Your task to perform on an android device: turn vacation reply on in the gmail app Image 0: 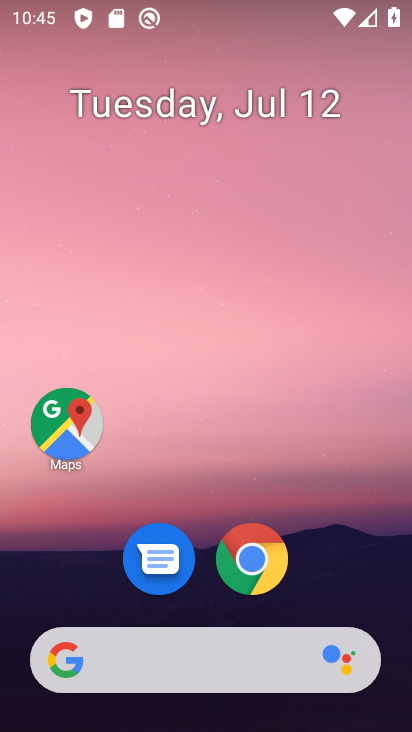
Step 0: drag from (227, 710) to (219, 261)
Your task to perform on an android device: turn vacation reply on in the gmail app Image 1: 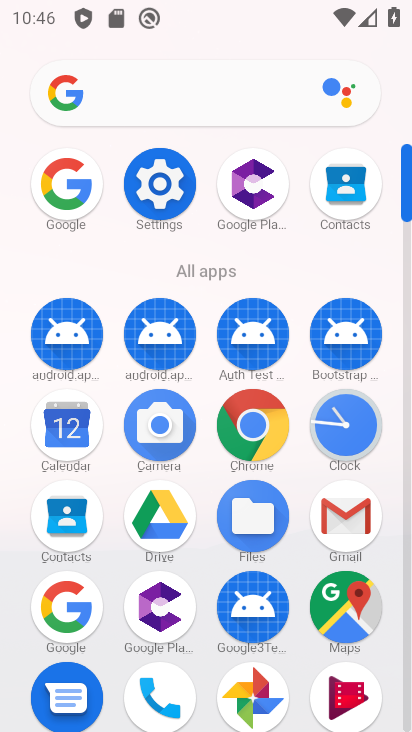
Step 1: click (344, 526)
Your task to perform on an android device: turn vacation reply on in the gmail app Image 2: 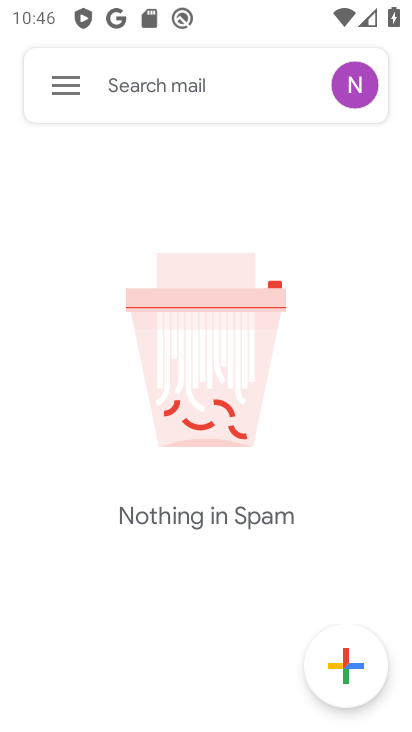
Step 2: click (68, 95)
Your task to perform on an android device: turn vacation reply on in the gmail app Image 3: 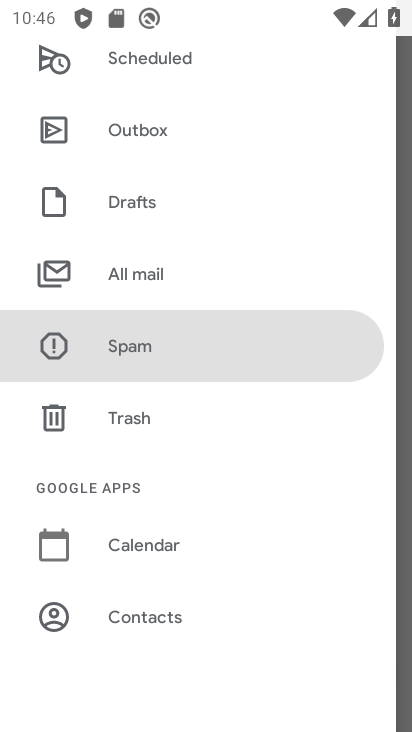
Step 3: drag from (124, 603) to (131, 131)
Your task to perform on an android device: turn vacation reply on in the gmail app Image 4: 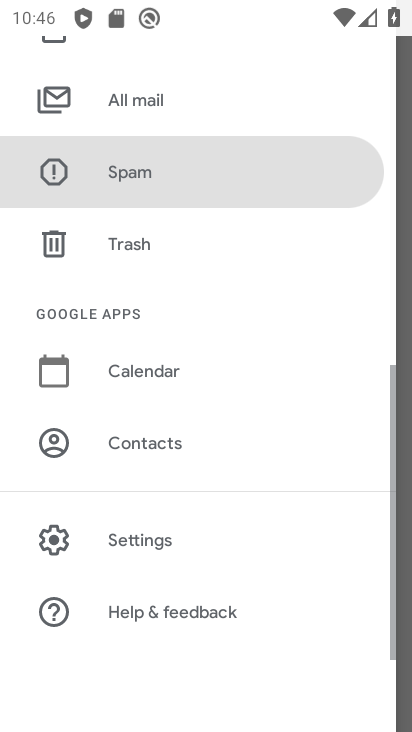
Step 4: drag from (146, 587) to (153, 358)
Your task to perform on an android device: turn vacation reply on in the gmail app Image 5: 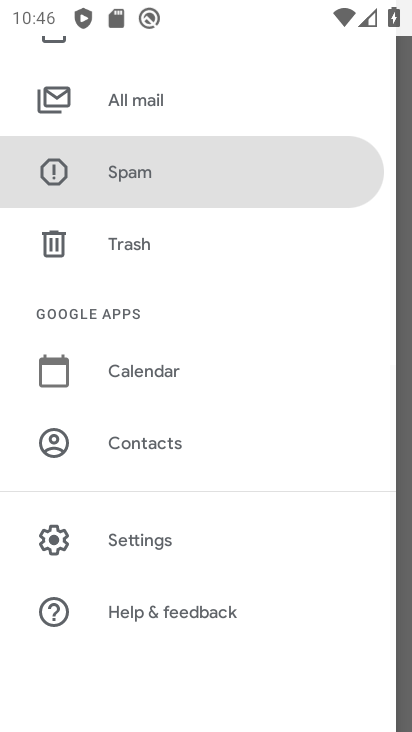
Step 5: click (201, 529)
Your task to perform on an android device: turn vacation reply on in the gmail app Image 6: 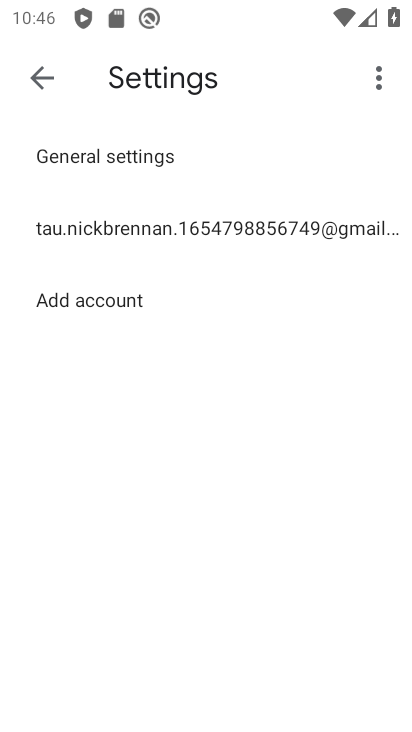
Step 6: click (184, 236)
Your task to perform on an android device: turn vacation reply on in the gmail app Image 7: 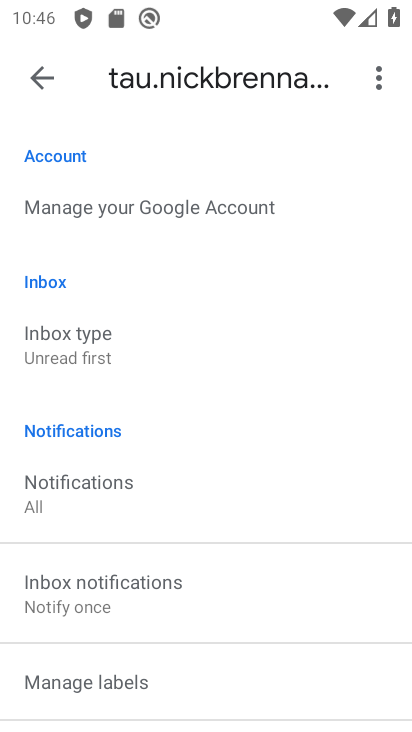
Step 7: drag from (157, 607) to (167, 258)
Your task to perform on an android device: turn vacation reply on in the gmail app Image 8: 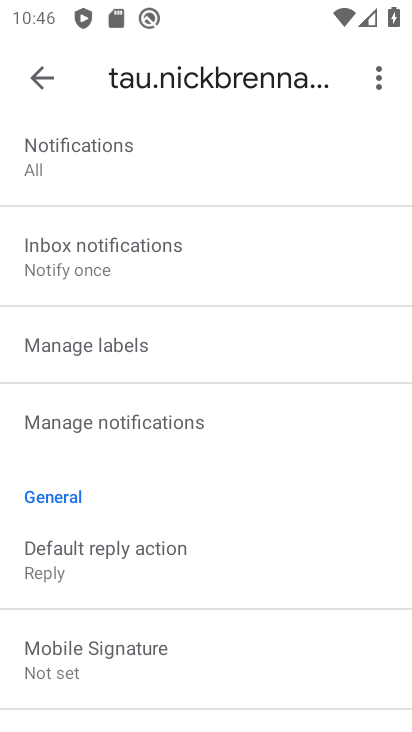
Step 8: drag from (186, 598) to (199, 304)
Your task to perform on an android device: turn vacation reply on in the gmail app Image 9: 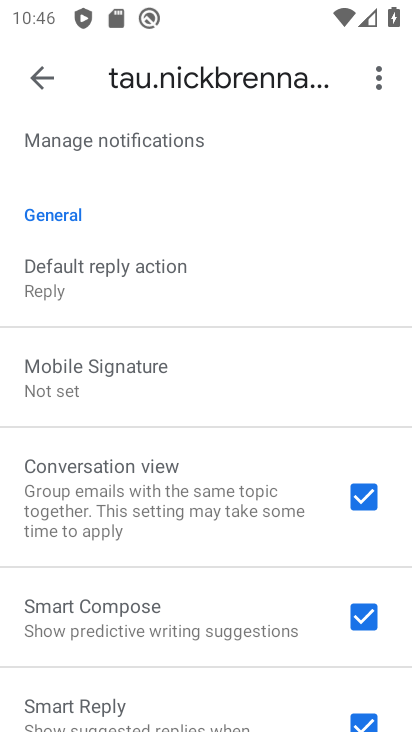
Step 9: drag from (192, 610) to (174, 388)
Your task to perform on an android device: turn vacation reply on in the gmail app Image 10: 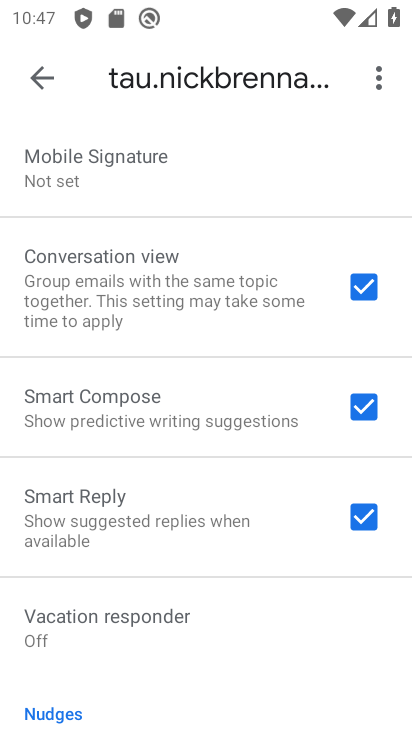
Step 10: click (155, 629)
Your task to perform on an android device: turn vacation reply on in the gmail app Image 11: 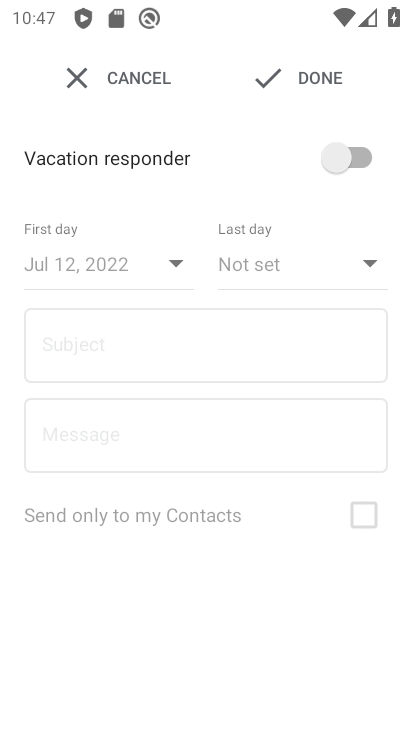
Step 11: click (363, 166)
Your task to perform on an android device: turn vacation reply on in the gmail app Image 12: 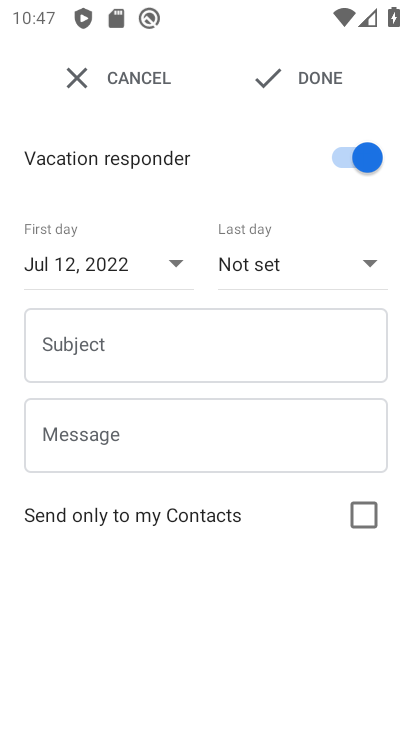
Step 12: task complete